Your task to perform on an android device: turn off wifi Image 0: 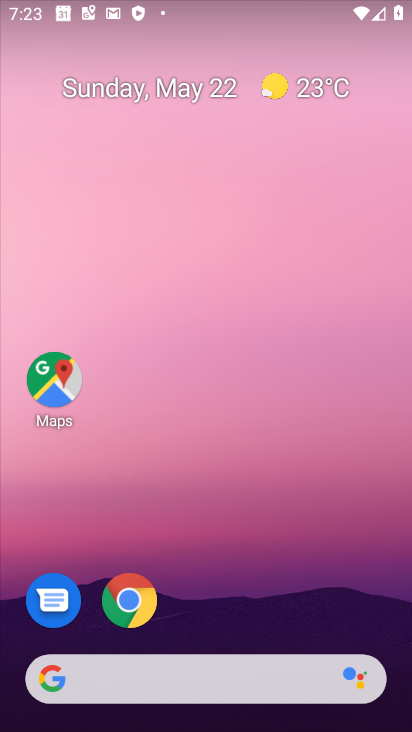
Step 0: drag from (199, 8) to (303, 589)
Your task to perform on an android device: turn off wifi Image 1: 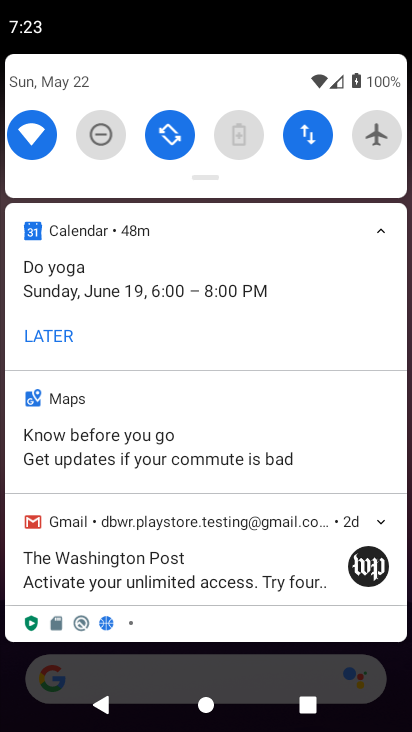
Step 1: click (19, 144)
Your task to perform on an android device: turn off wifi Image 2: 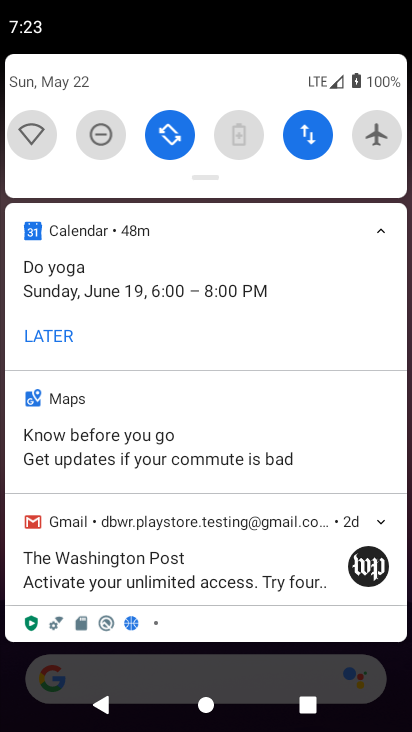
Step 2: task complete